Your task to perform on an android device: check out phone information Image 0: 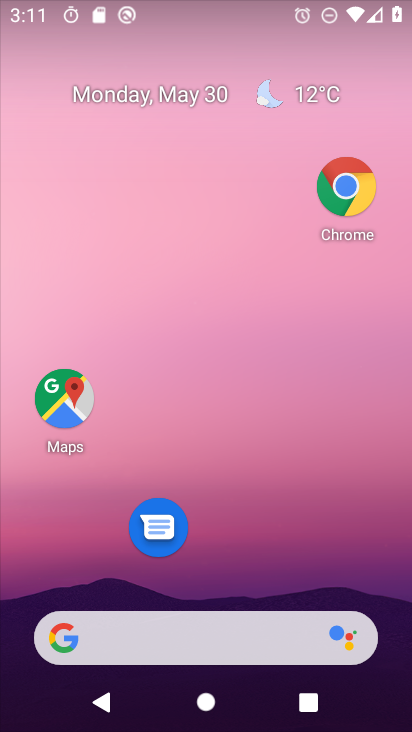
Step 0: drag from (229, 560) to (296, 39)
Your task to perform on an android device: check out phone information Image 1: 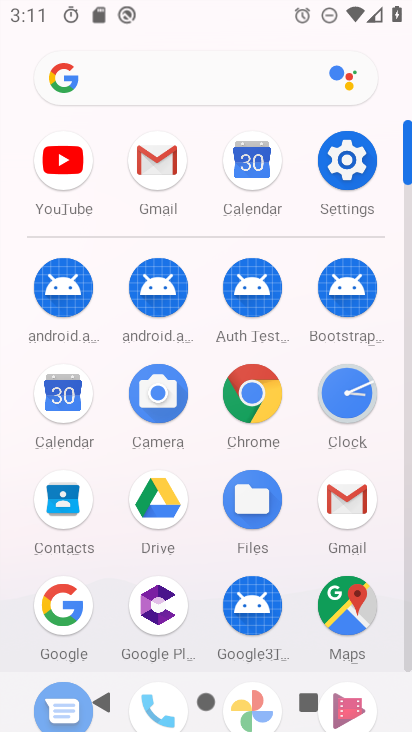
Step 1: click (384, 160)
Your task to perform on an android device: check out phone information Image 2: 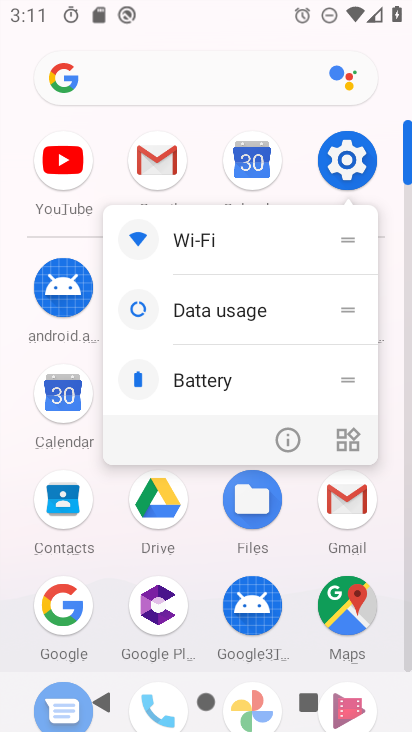
Step 2: click (275, 424)
Your task to perform on an android device: check out phone information Image 3: 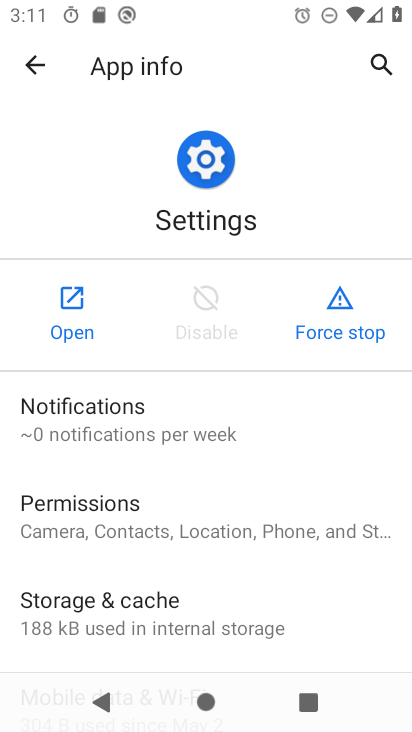
Step 3: click (81, 307)
Your task to perform on an android device: check out phone information Image 4: 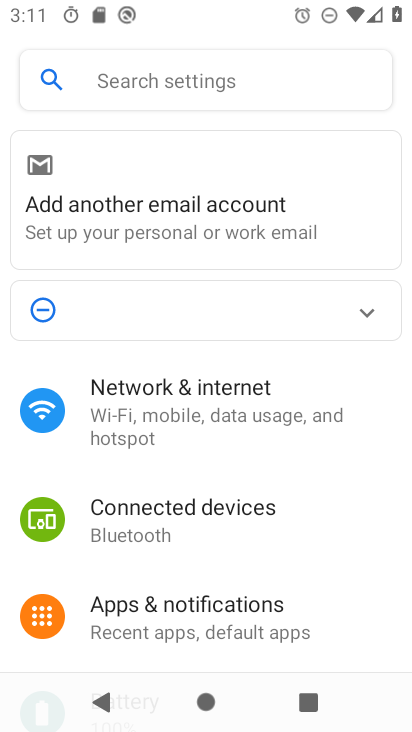
Step 4: drag from (222, 610) to (273, 2)
Your task to perform on an android device: check out phone information Image 5: 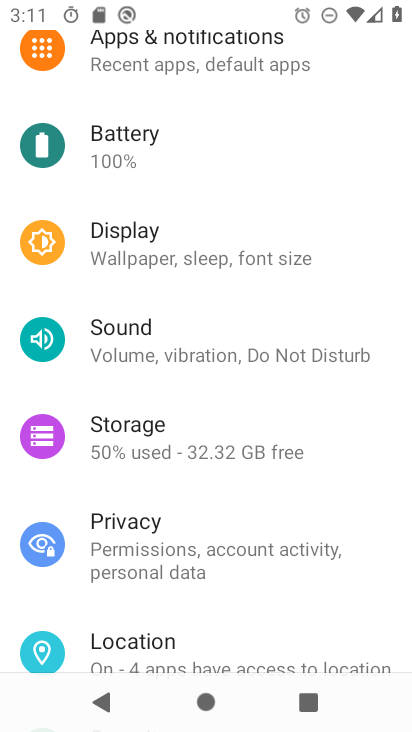
Step 5: drag from (203, 609) to (342, 8)
Your task to perform on an android device: check out phone information Image 6: 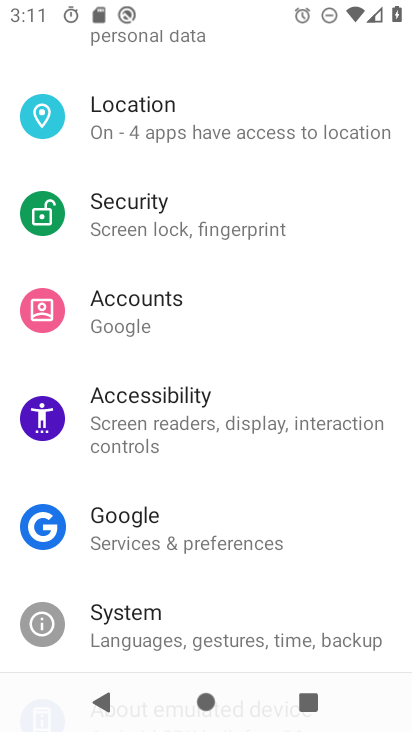
Step 6: drag from (196, 547) to (159, 38)
Your task to perform on an android device: check out phone information Image 7: 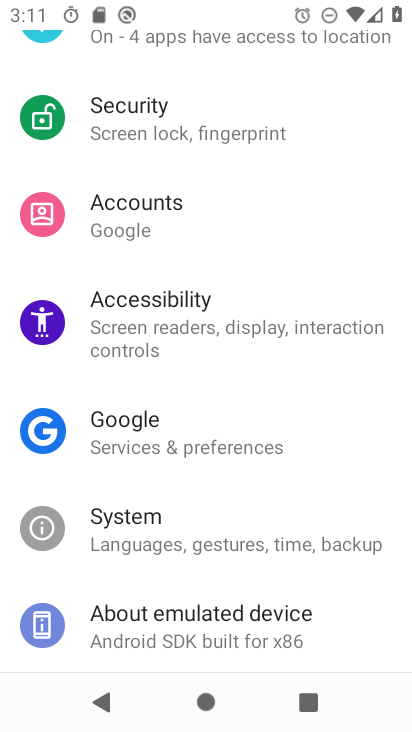
Step 7: click (199, 616)
Your task to perform on an android device: check out phone information Image 8: 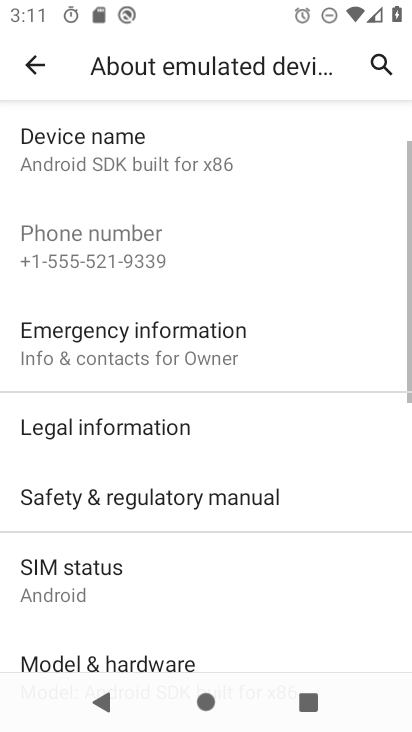
Step 8: task complete